Your task to perform on an android device: open app "Adobe Express: Graphic Design" (install if not already installed) Image 0: 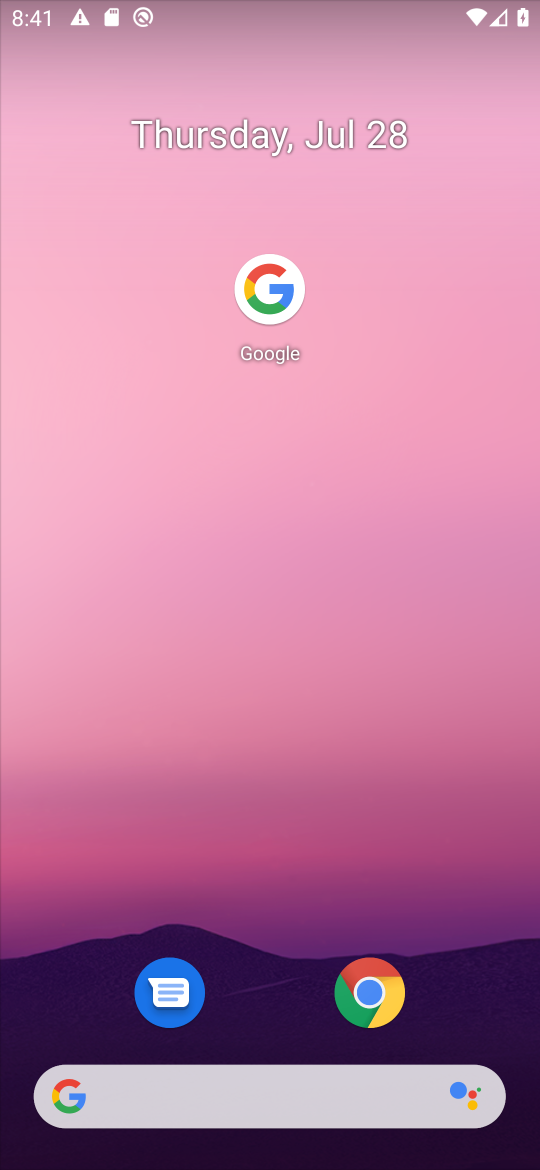
Step 0: drag from (410, 844) to (438, 105)
Your task to perform on an android device: open app "Adobe Express: Graphic Design" (install if not already installed) Image 1: 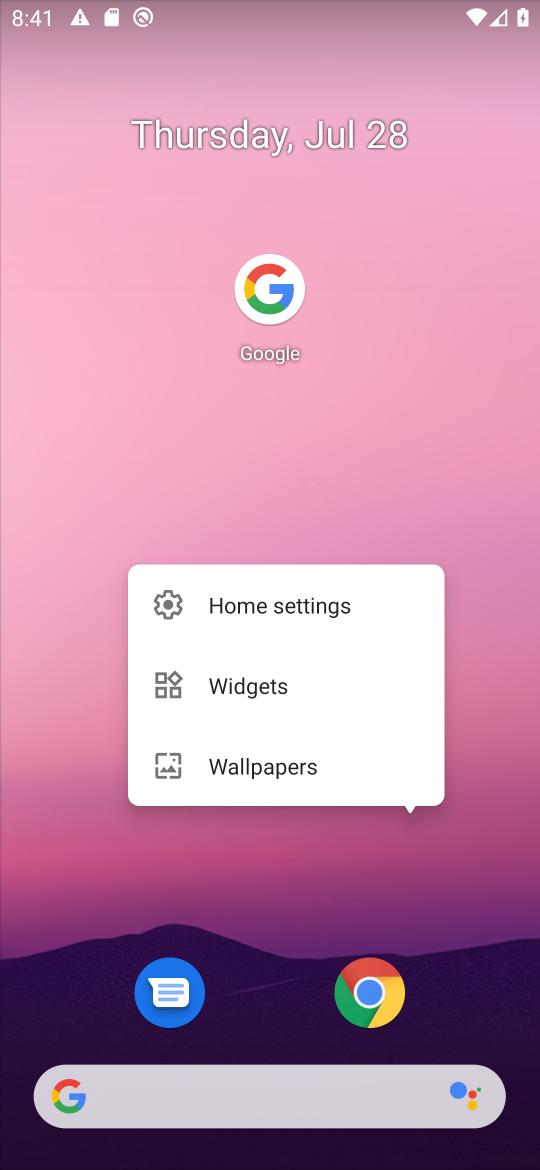
Step 1: click (434, 843)
Your task to perform on an android device: open app "Adobe Express: Graphic Design" (install if not already installed) Image 2: 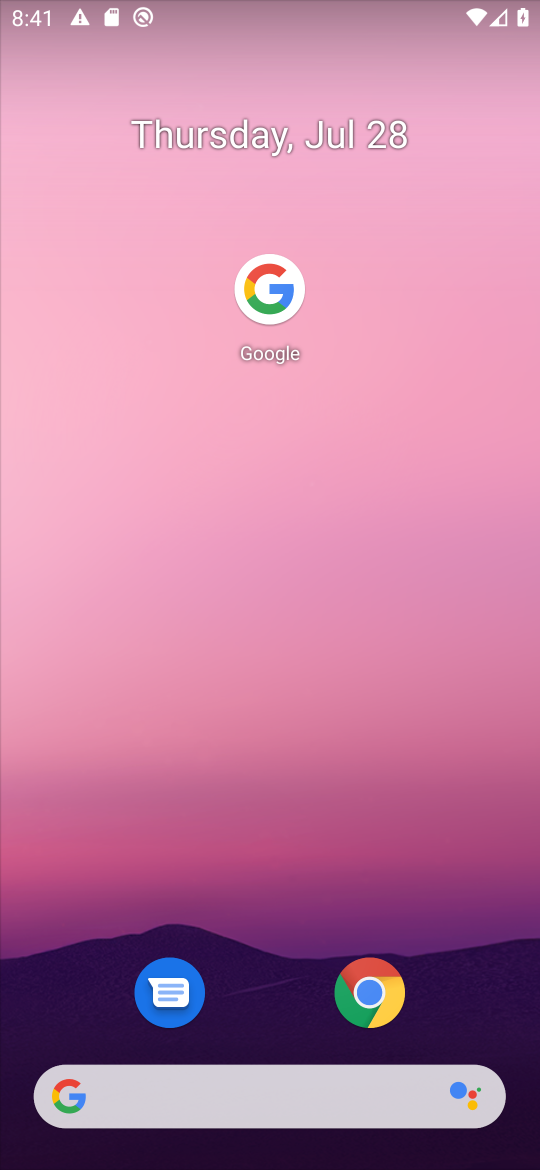
Step 2: drag from (379, 853) to (433, 4)
Your task to perform on an android device: open app "Adobe Express: Graphic Design" (install if not already installed) Image 3: 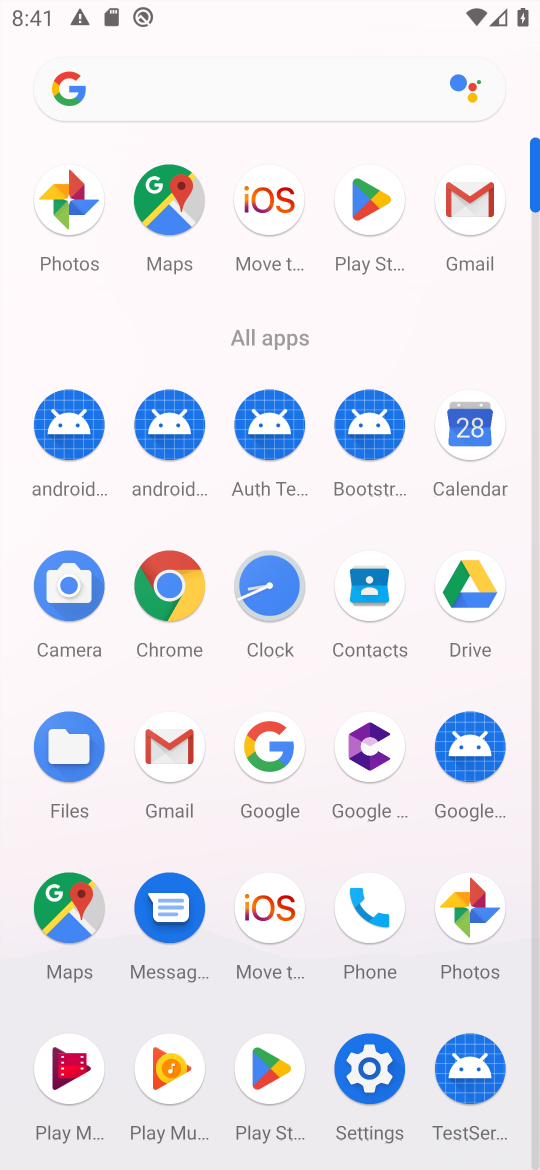
Step 3: click (264, 1053)
Your task to perform on an android device: open app "Adobe Express: Graphic Design" (install if not already installed) Image 4: 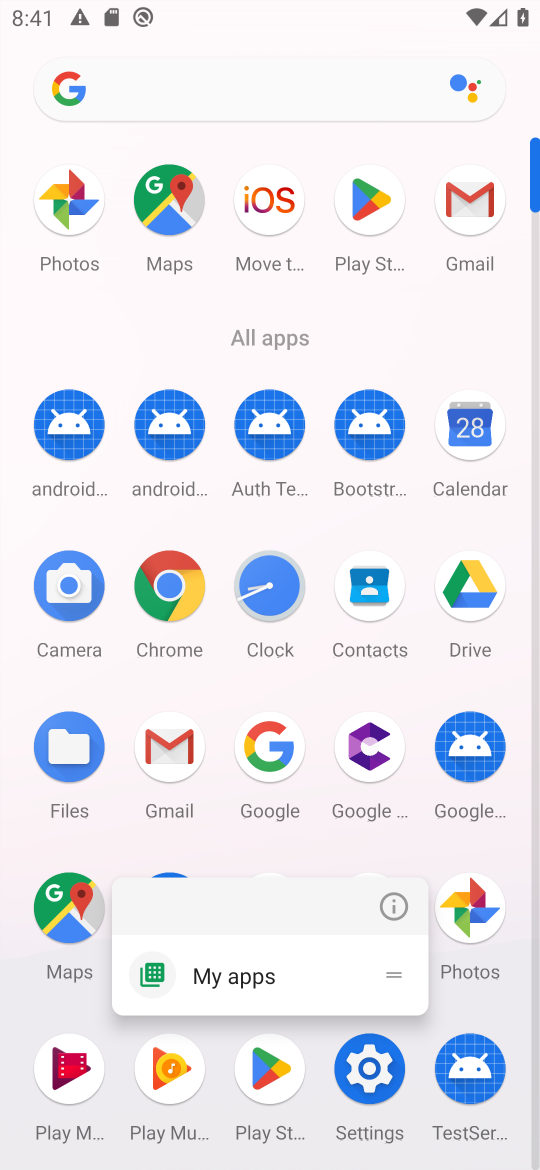
Step 4: click (261, 1063)
Your task to perform on an android device: open app "Adobe Express: Graphic Design" (install if not already installed) Image 5: 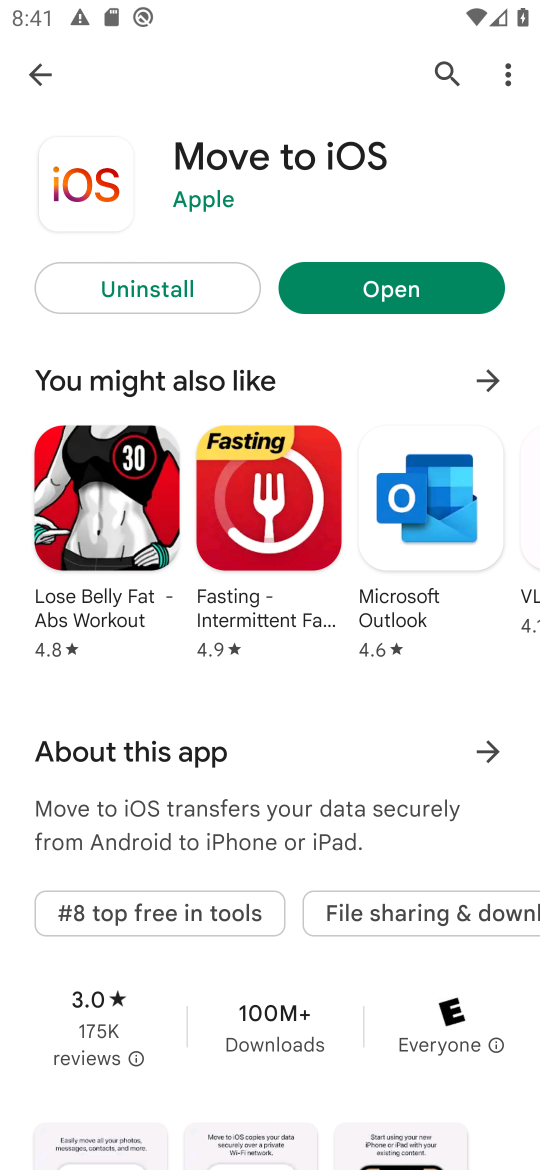
Step 5: click (49, 70)
Your task to perform on an android device: open app "Adobe Express: Graphic Design" (install if not already installed) Image 6: 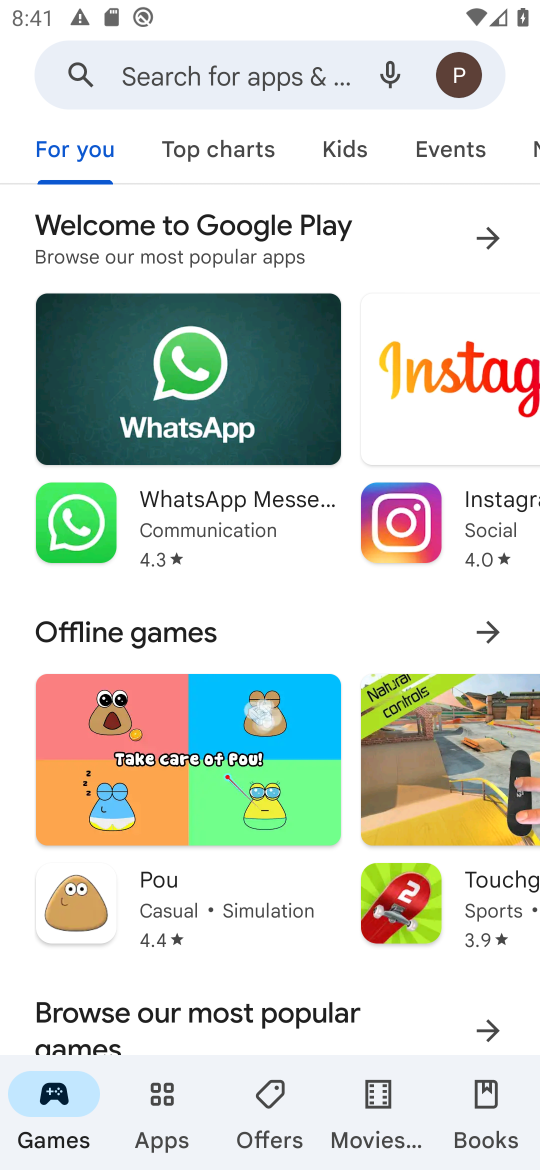
Step 6: click (150, 63)
Your task to perform on an android device: open app "Adobe Express: Graphic Design" (install if not already installed) Image 7: 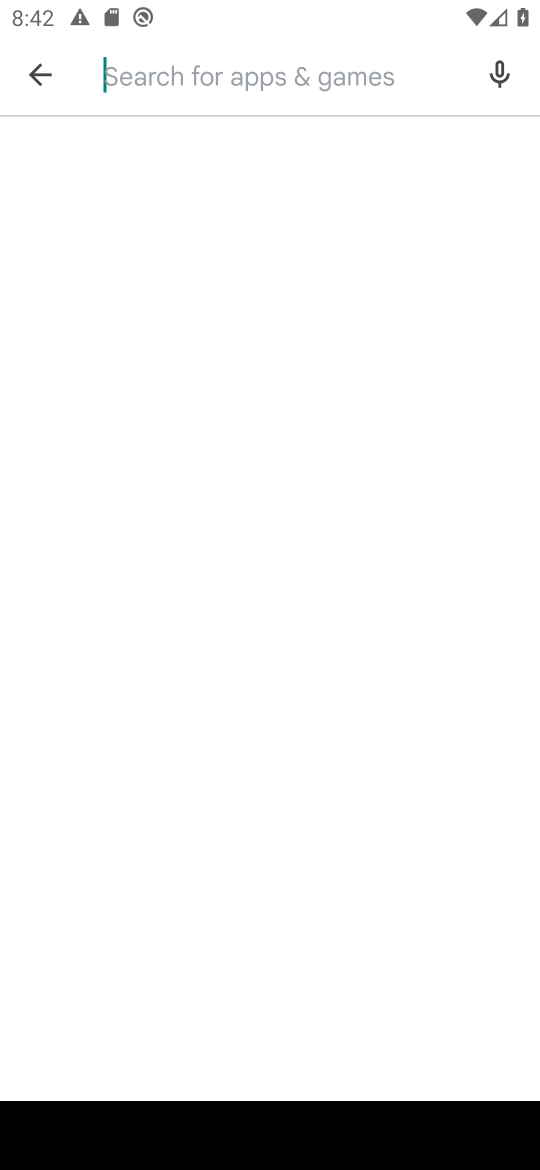
Step 7: type "adobe express"
Your task to perform on an android device: open app "Adobe Express: Graphic Design" (install if not already installed) Image 8: 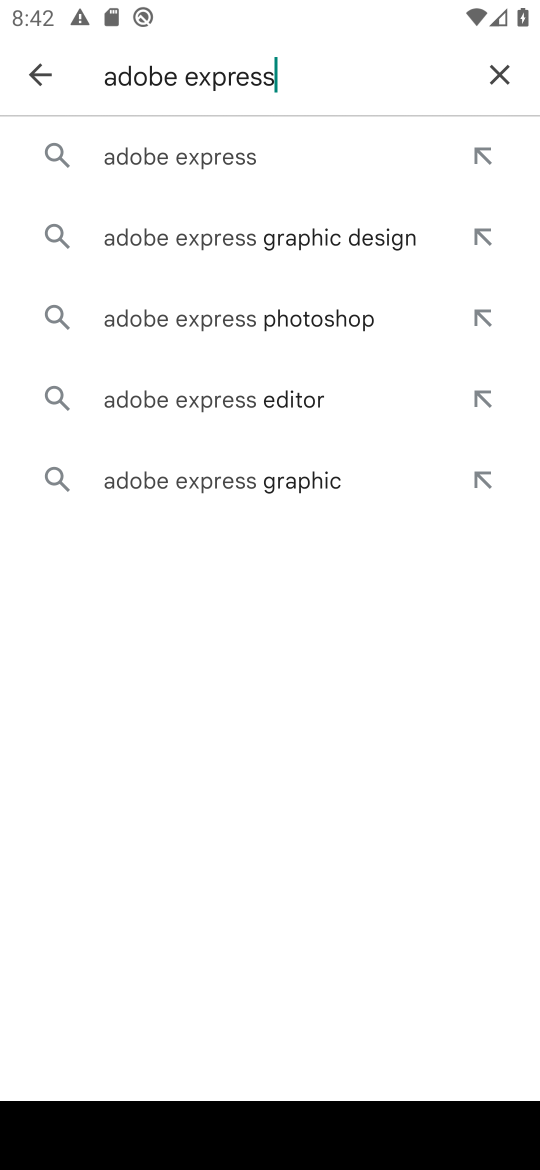
Step 8: click (336, 238)
Your task to perform on an android device: open app "Adobe Express: Graphic Design" (install if not already installed) Image 9: 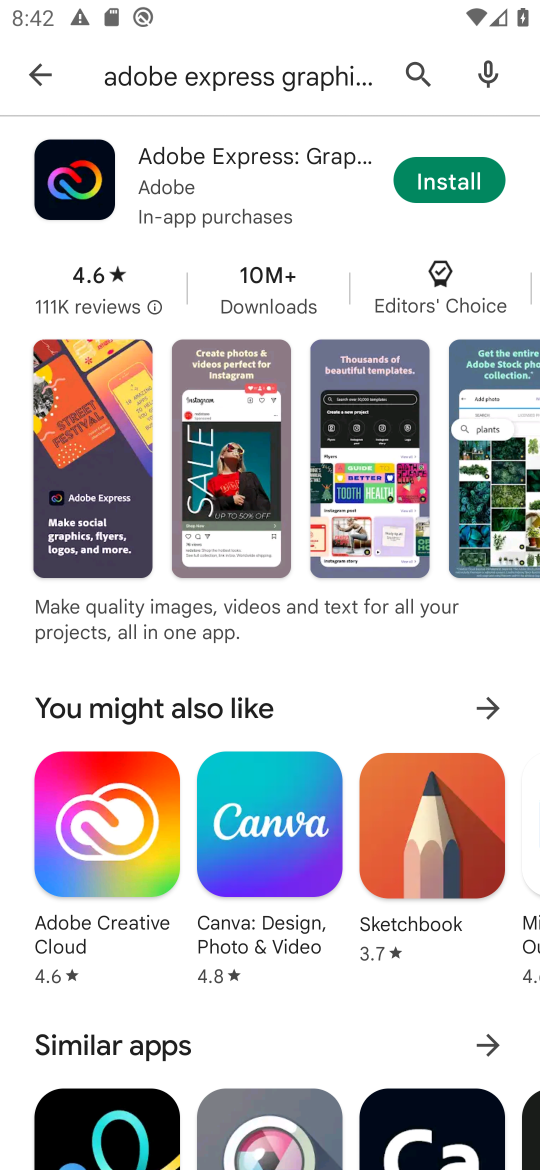
Step 9: click (467, 187)
Your task to perform on an android device: open app "Adobe Express: Graphic Design" (install if not already installed) Image 10: 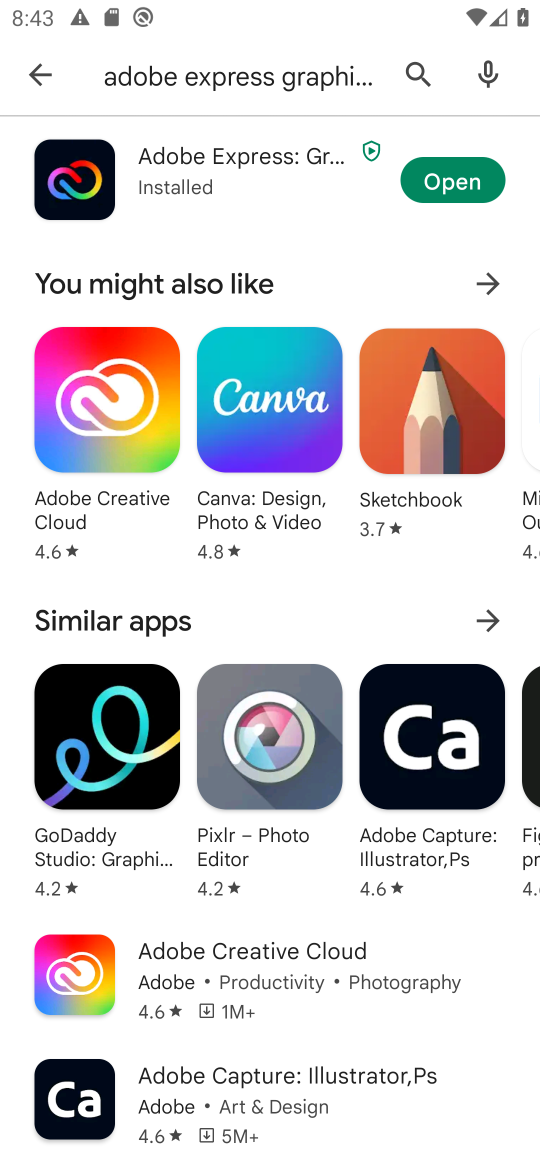
Step 10: click (490, 177)
Your task to perform on an android device: open app "Adobe Express: Graphic Design" (install if not already installed) Image 11: 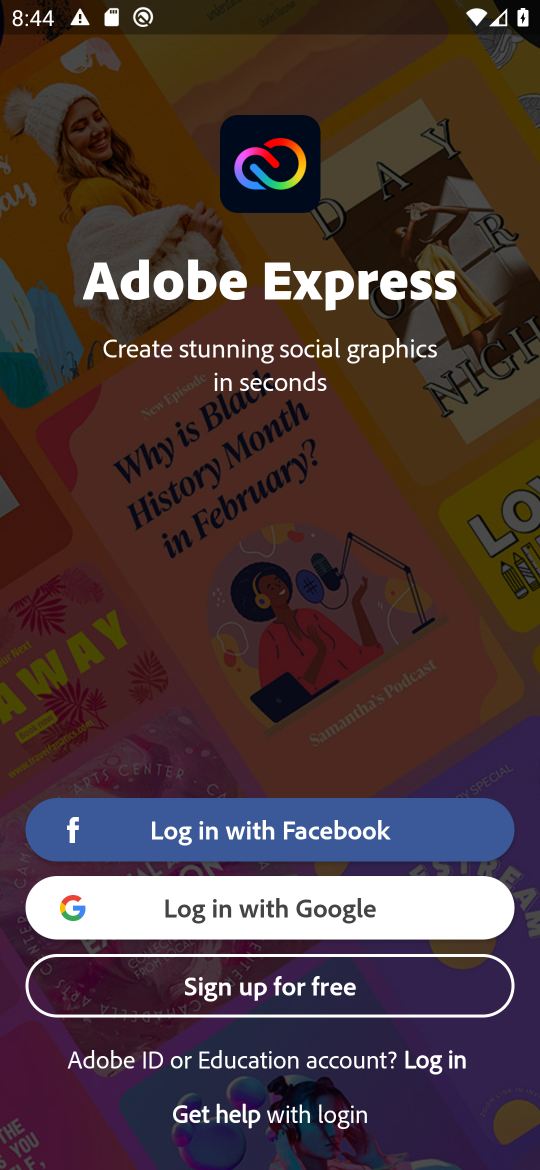
Step 11: click (467, 996)
Your task to perform on an android device: open app "Adobe Express: Graphic Design" (install if not already installed) Image 12: 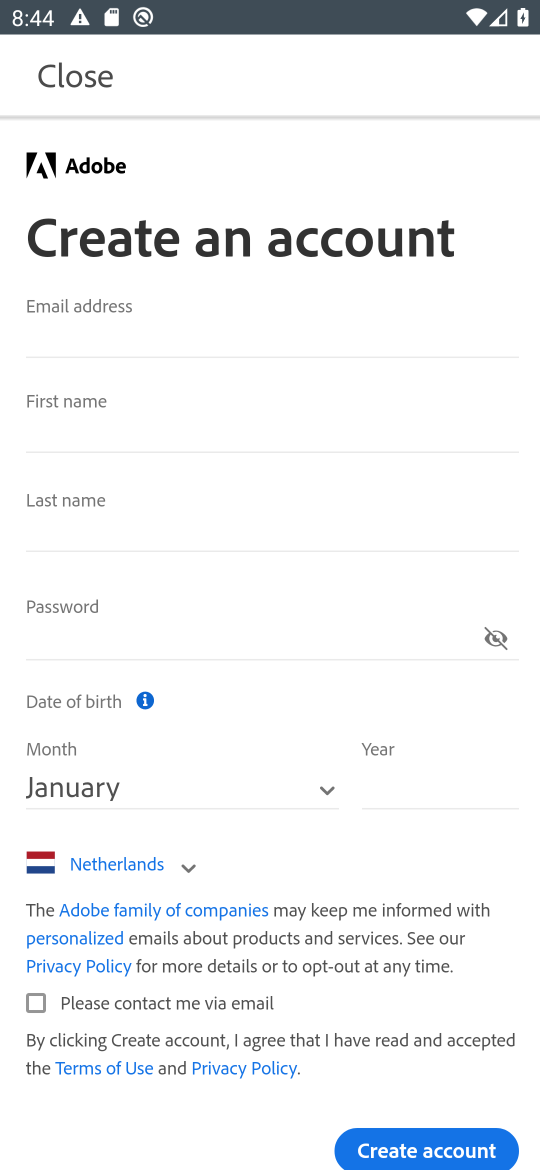
Step 12: task complete